Your task to perform on an android device: What is the recent news? Image 0: 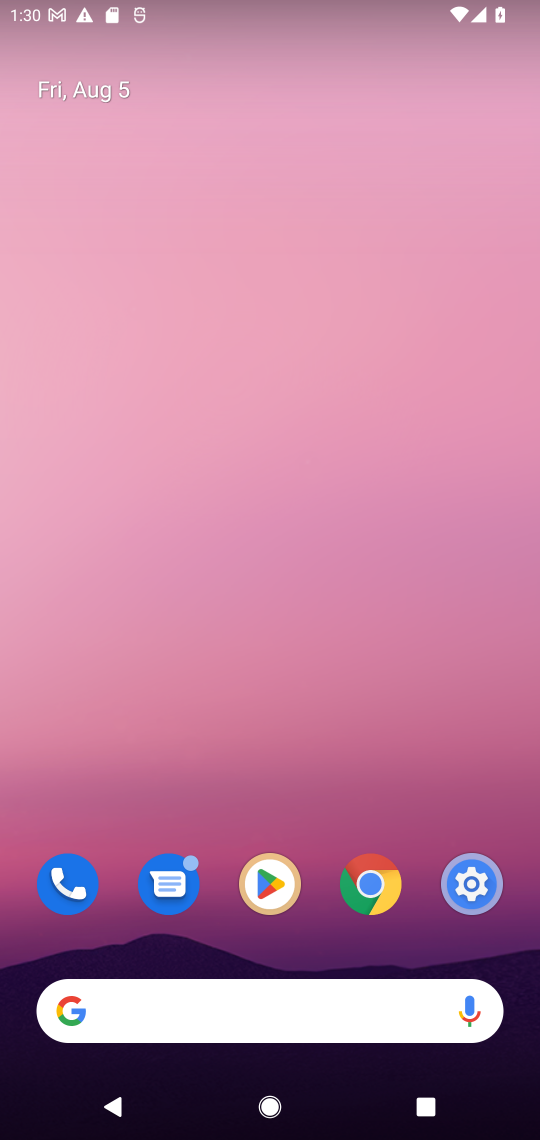
Step 0: drag from (343, 828) to (281, 47)
Your task to perform on an android device: What is the recent news? Image 1: 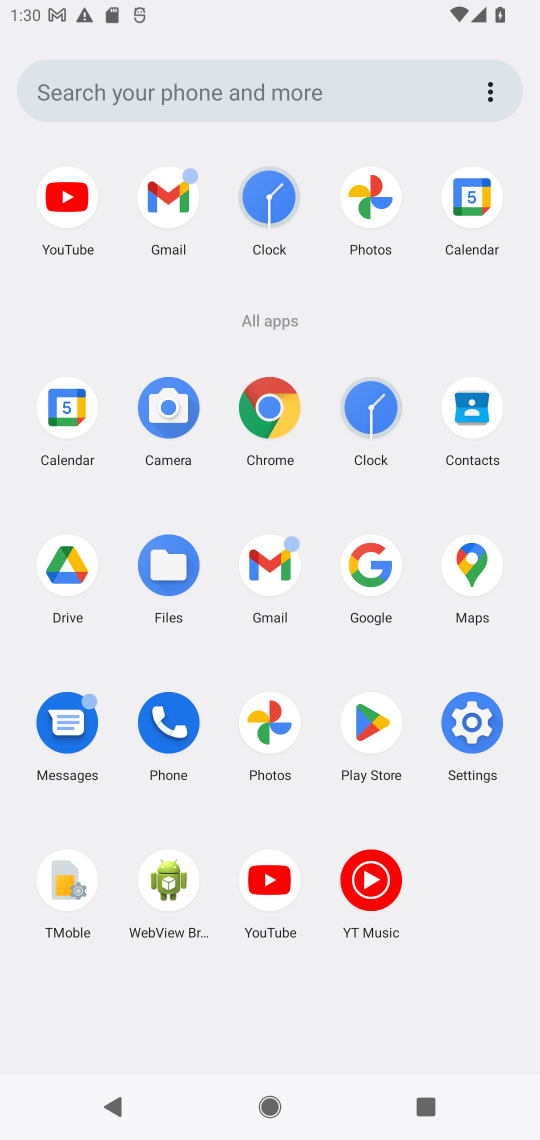
Step 1: click (365, 569)
Your task to perform on an android device: What is the recent news? Image 2: 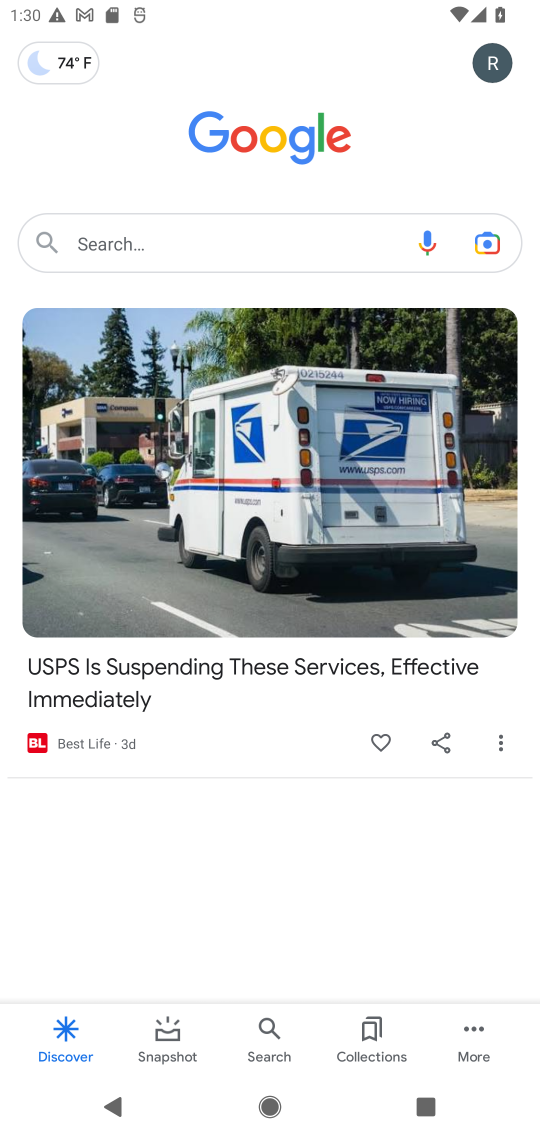
Step 2: click (129, 241)
Your task to perform on an android device: What is the recent news? Image 3: 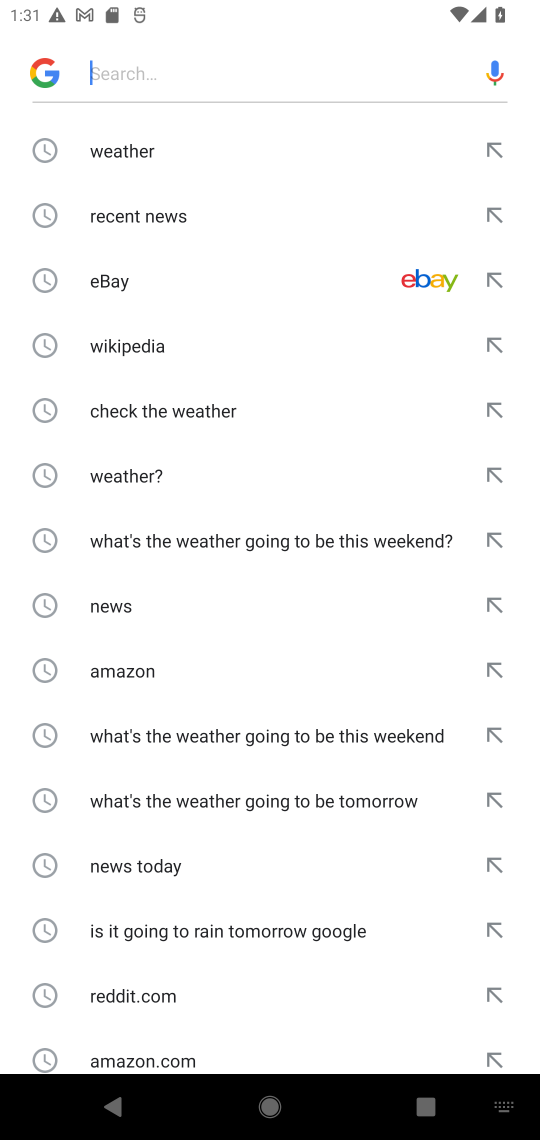
Step 3: type "What is the recent news?"
Your task to perform on an android device: What is the recent news? Image 4: 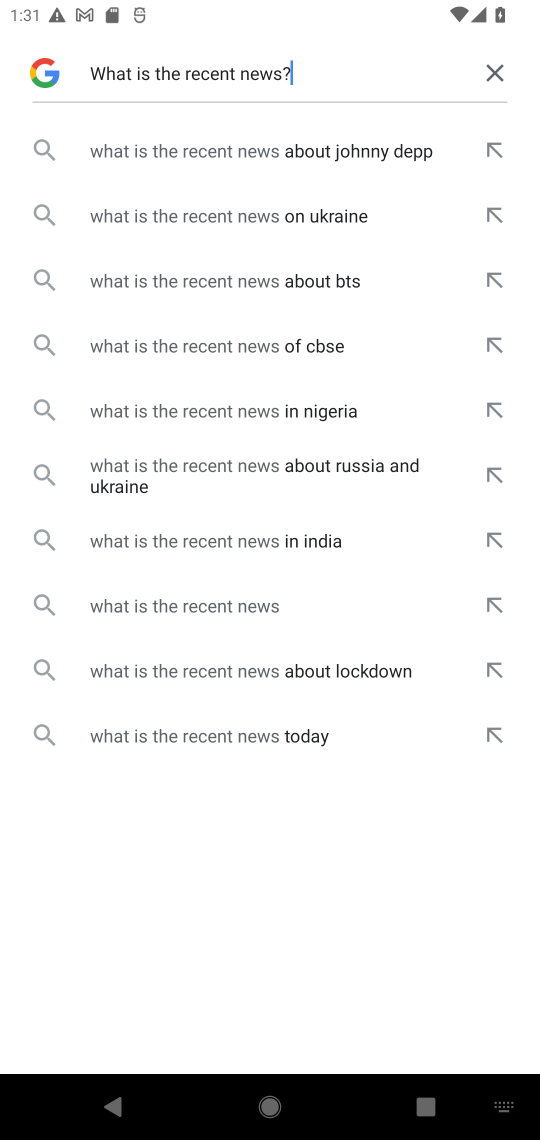
Step 4: click (228, 607)
Your task to perform on an android device: What is the recent news? Image 5: 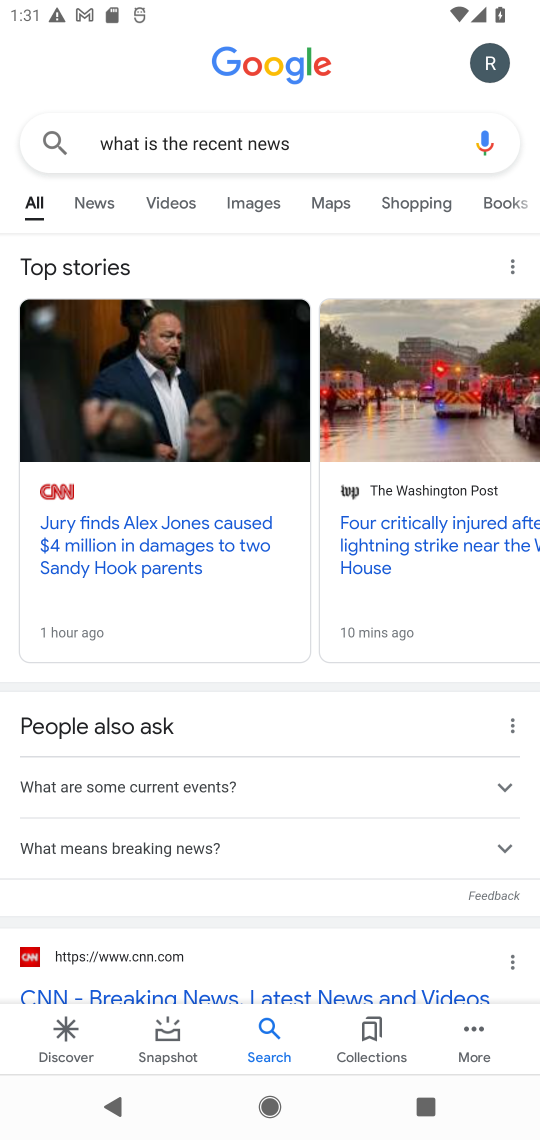
Step 5: task complete